Your task to perform on an android device: Go to internet settings Image 0: 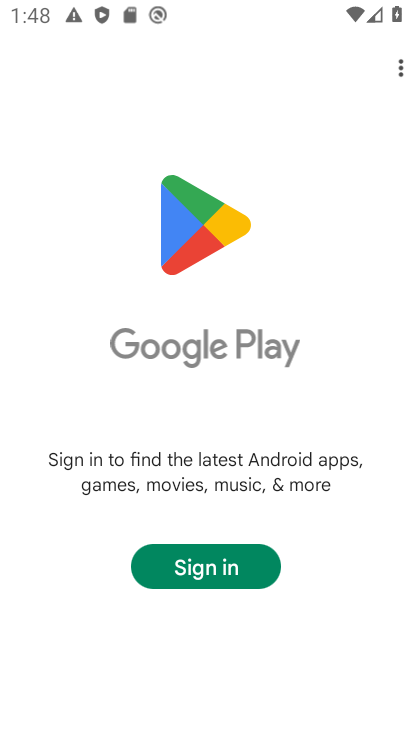
Step 0: press home button
Your task to perform on an android device: Go to internet settings Image 1: 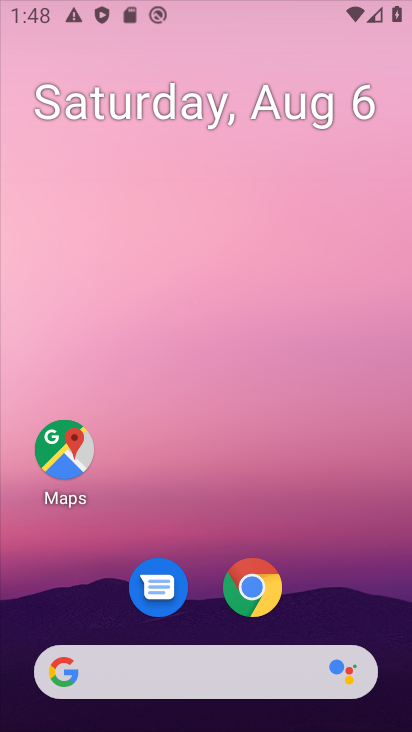
Step 1: drag from (226, 491) to (230, 83)
Your task to perform on an android device: Go to internet settings Image 2: 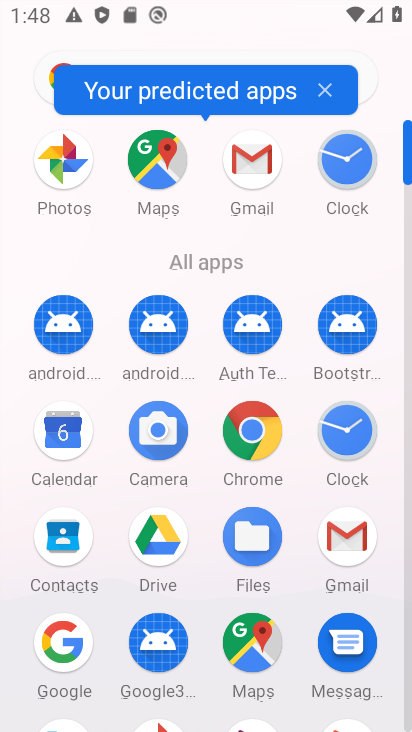
Step 2: drag from (178, 535) to (185, 150)
Your task to perform on an android device: Go to internet settings Image 3: 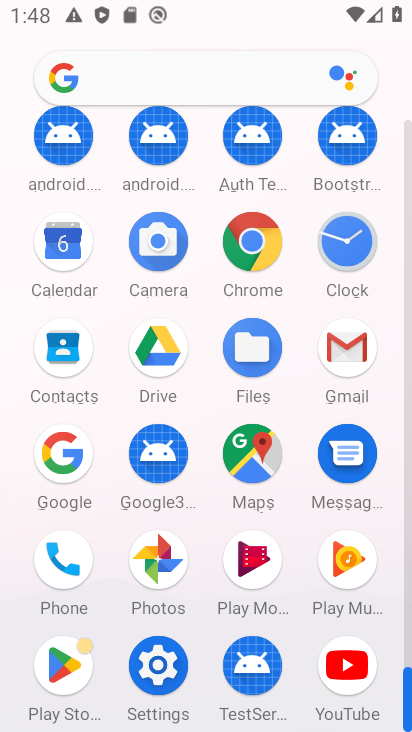
Step 3: click (165, 644)
Your task to perform on an android device: Go to internet settings Image 4: 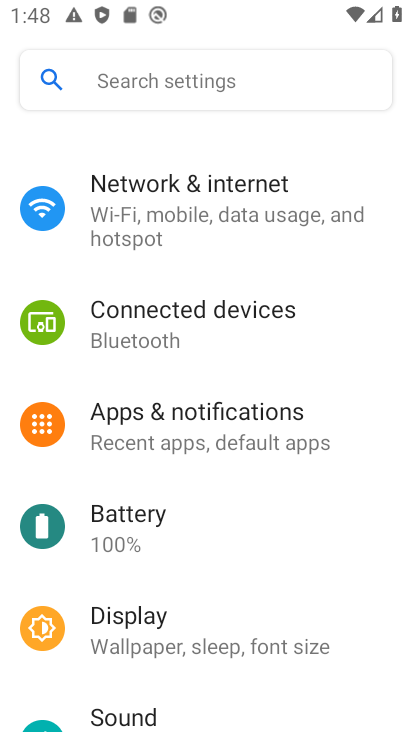
Step 4: click (246, 157)
Your task to perform on an android device: Go to internet settings Image 5: 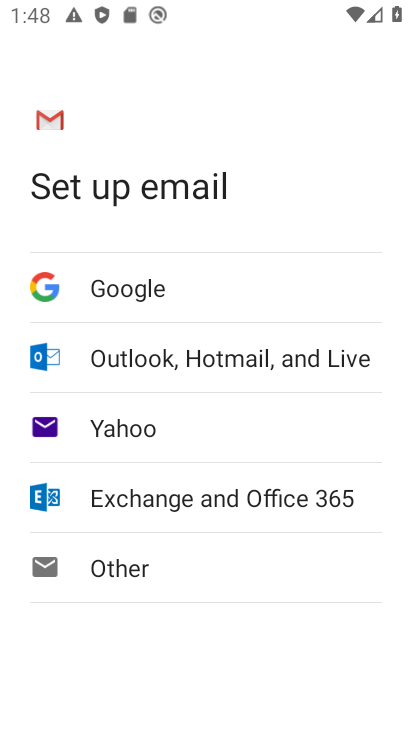
Step 5: press back button
Your task to perform on an android device: Go to internet settings Image 6: 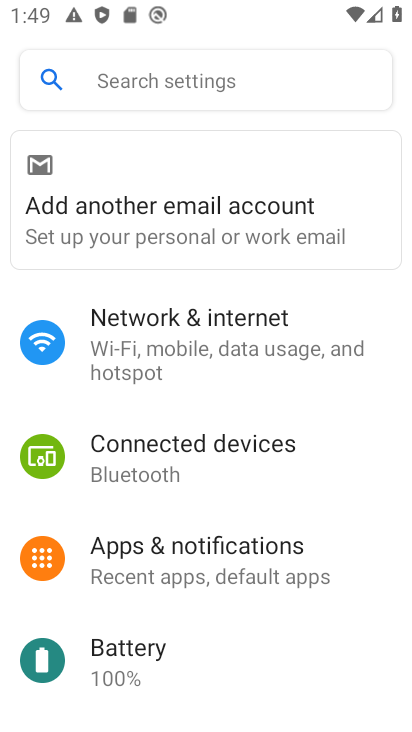
Step 6: click (156, 330)
Your task to perform on an android device: Go to internet settings Image 7: 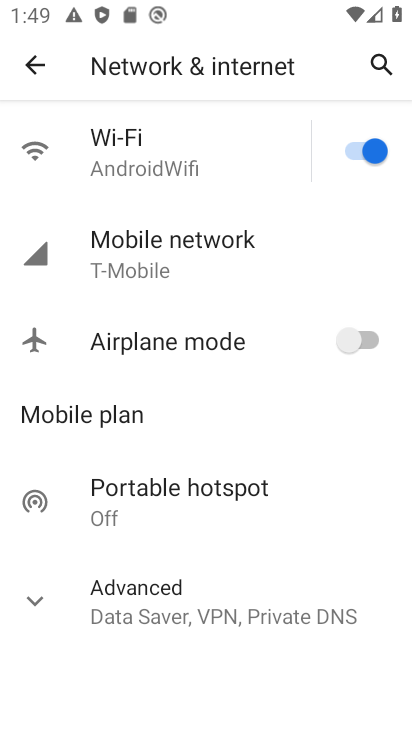
Step 7: task complete